Your task to perform on an android device: delete a single message in the gmail app Image 0: 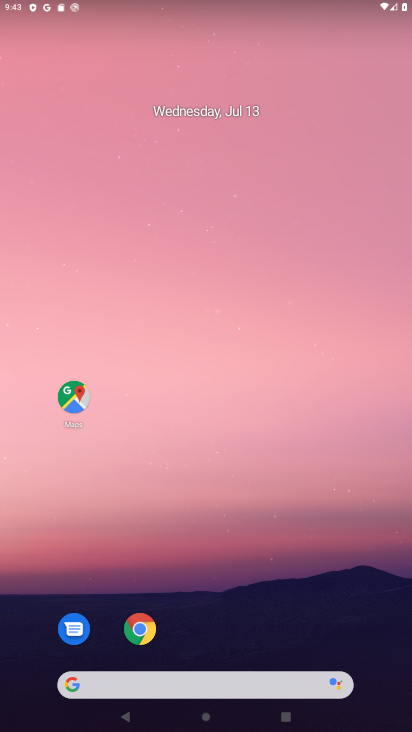
Step 0: drag from (247, 643) to (187, 0)
Your task to perform on an android device: delete a single message in the gmail app Image 1: 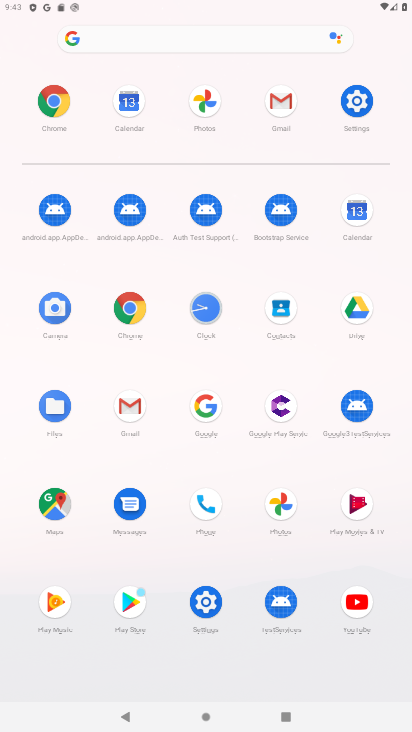
Step 1: click (142, 414)
Your task to perform on an android device: delete a single message in the gmail app Image 2: 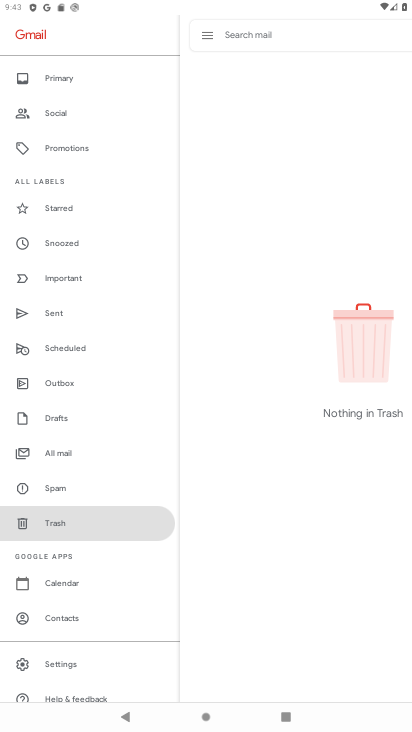
Step 2: click (77, 458)
Your task to perform on an android device: delete a single message in the gmail app Image 3: 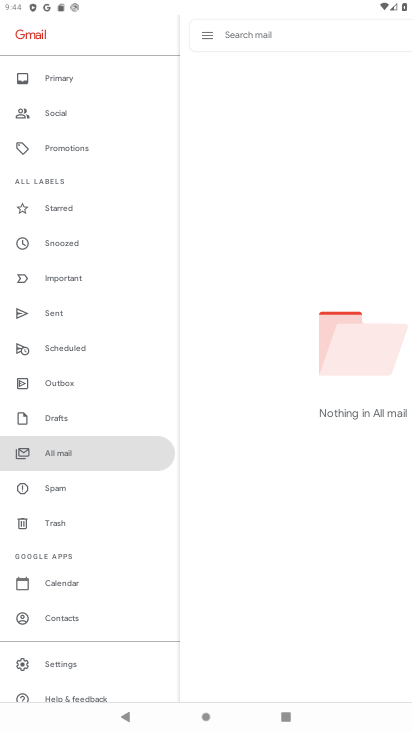
Step 3: task complete